Your task to perform on an android device: Open the calendar and show me this week's events? Image 0: 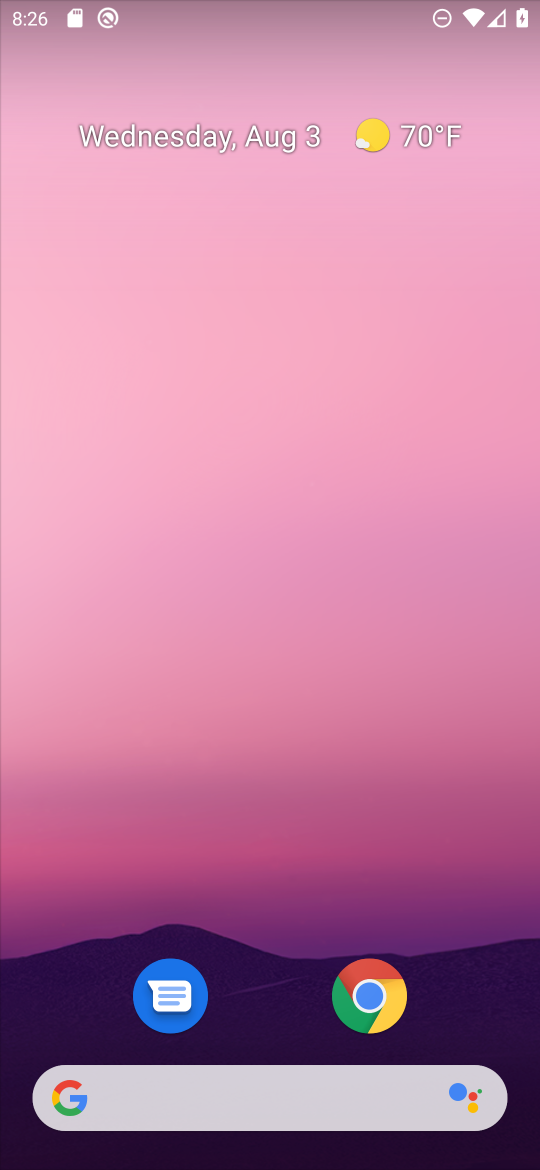
Step 0: drag from (288, 880) to (318, 0)
Your task to perform on an android device: Open the calendar and show me this week's events? Image 1: 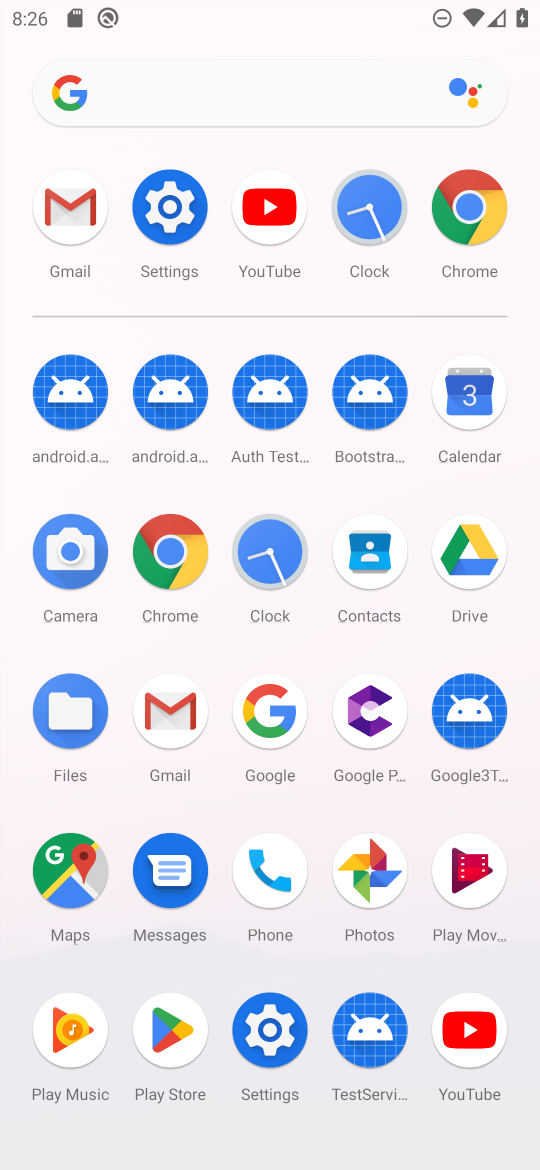
Step 1: click (172, 206)
Your task to perform on an android device: Open the calendar and show me this week's events? Image 2: 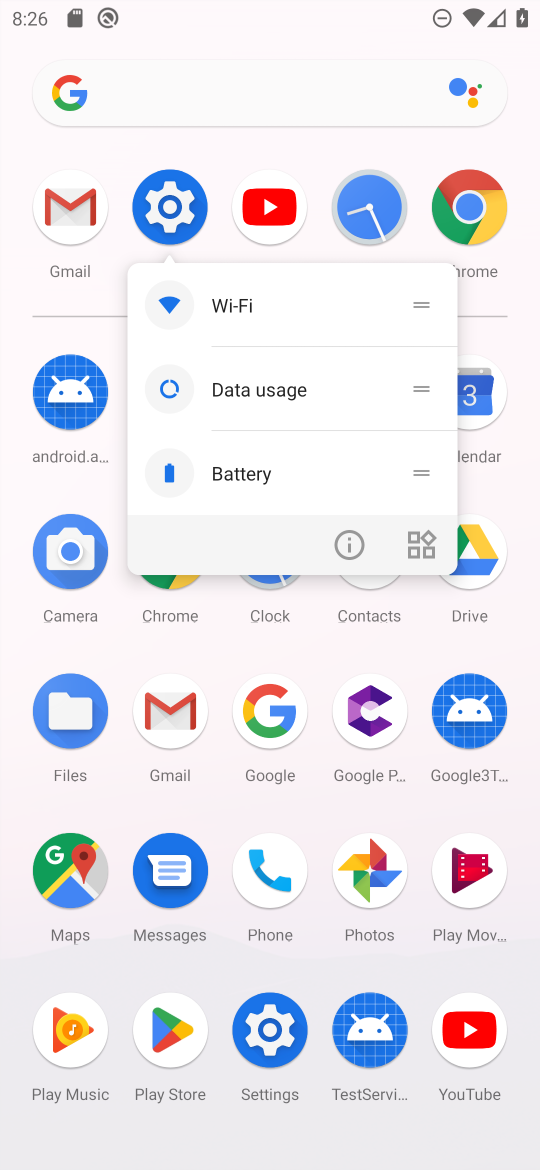
Step 2: click (172, 209)
Your task to perform on an android device: Open the calendar and show me this week's events? Image 3: 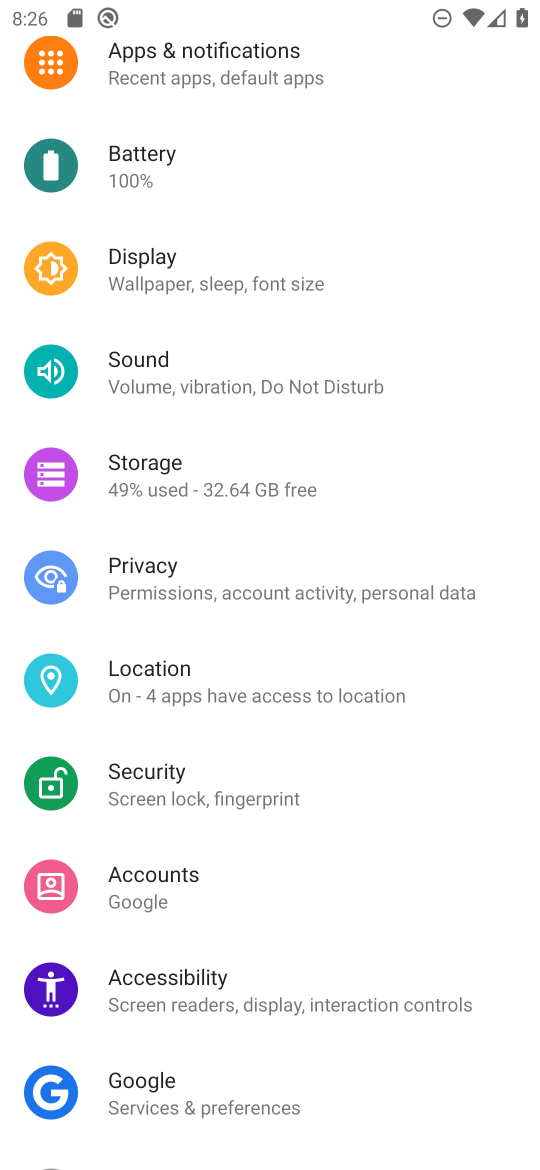
Step 3: drag from (275, 197) to (373, 915)
Your task to perform on an android device: Open the calendar and show me this week's events? Image 4: 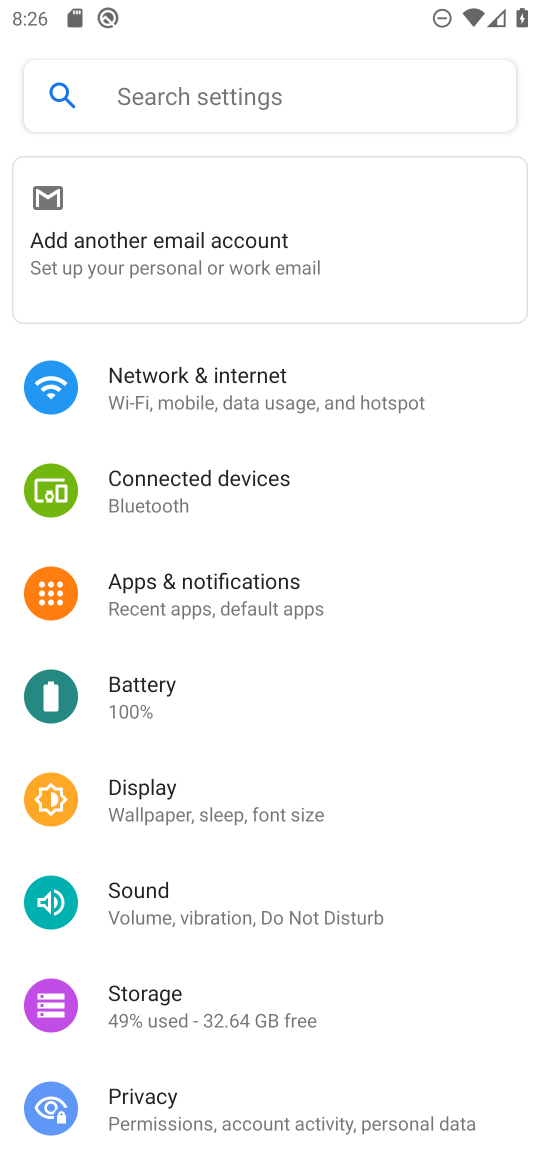
Step 4: press home button
Your task to perform on an android device: Open the calendar and show me this week's events? Image 5: 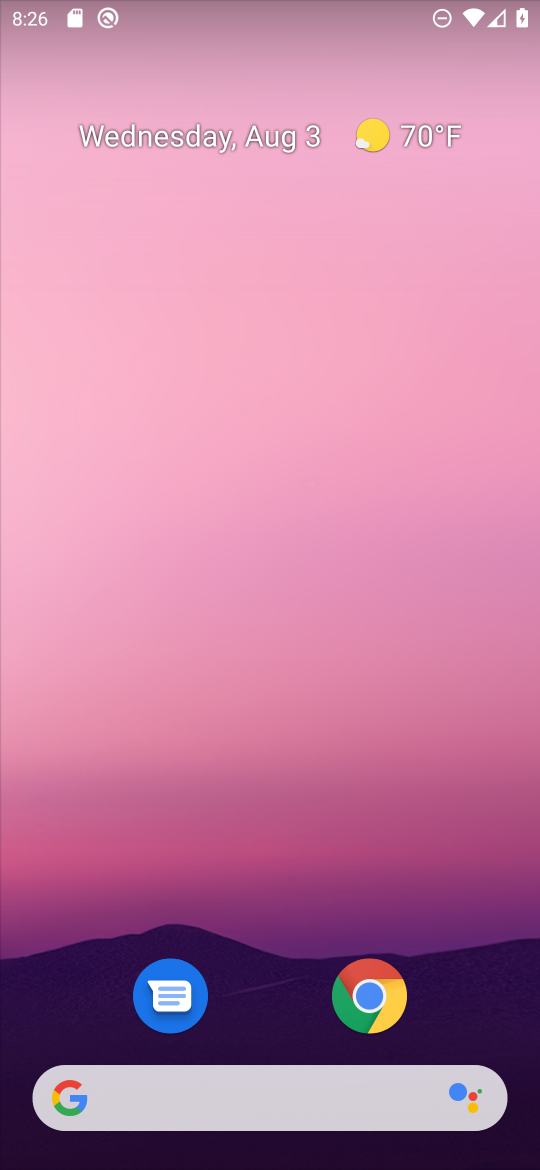
Step 5: drag from (316, 881) to (281, 0)
Your task to perform on an android device: Open the calendar and show me this week's events? Image 6: 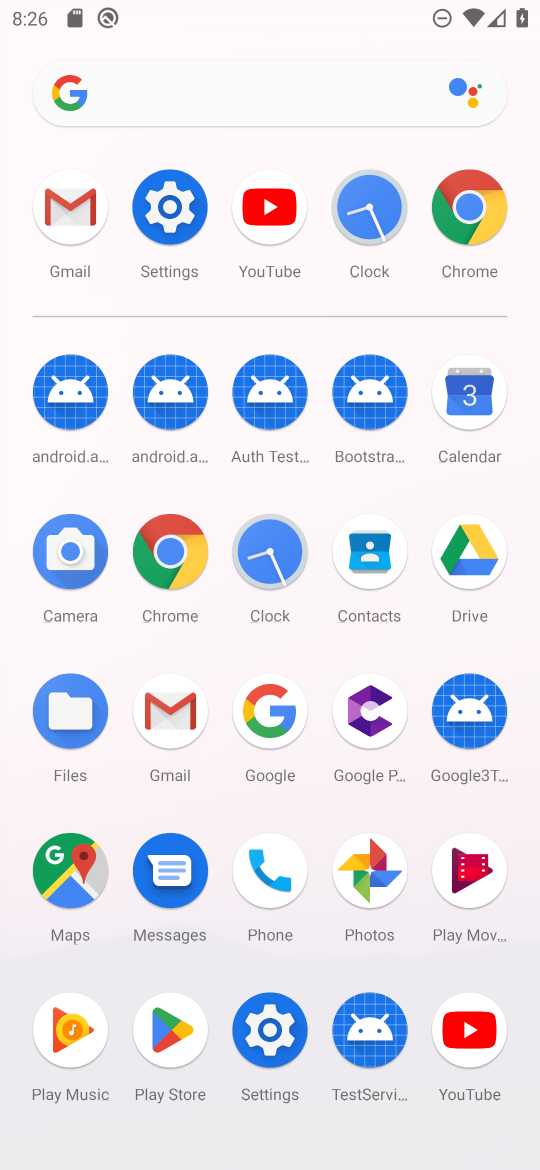
Step 6: click (472, 392)
Your task to perform on an android device: Open the calendar and show me this week's events? Image 7: 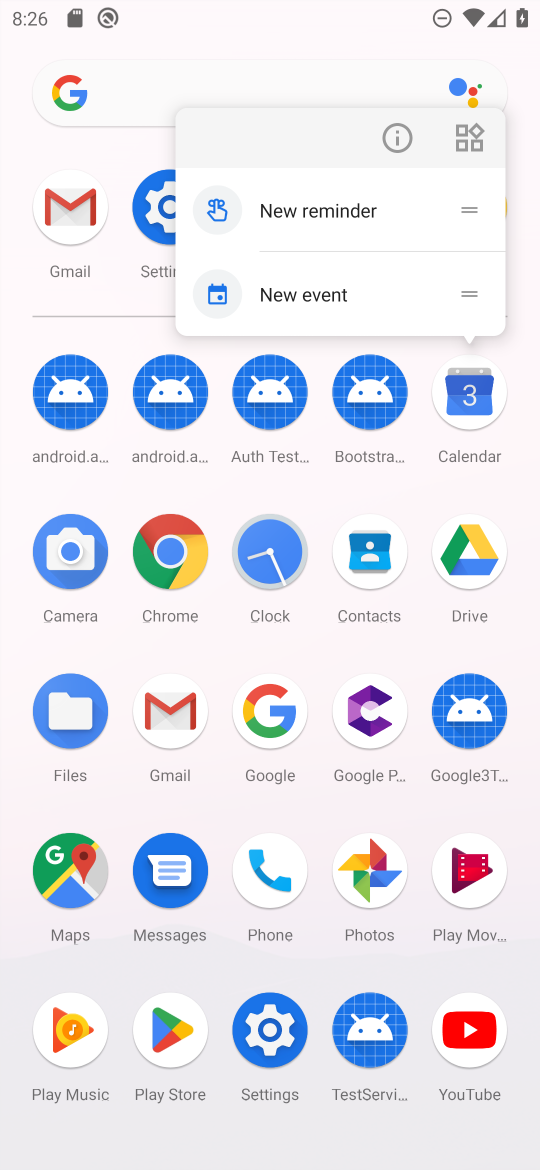
Step 7: click (472, 392)
Your task to perform on an android device: Open the calendar and show me this week's events? Image 8: 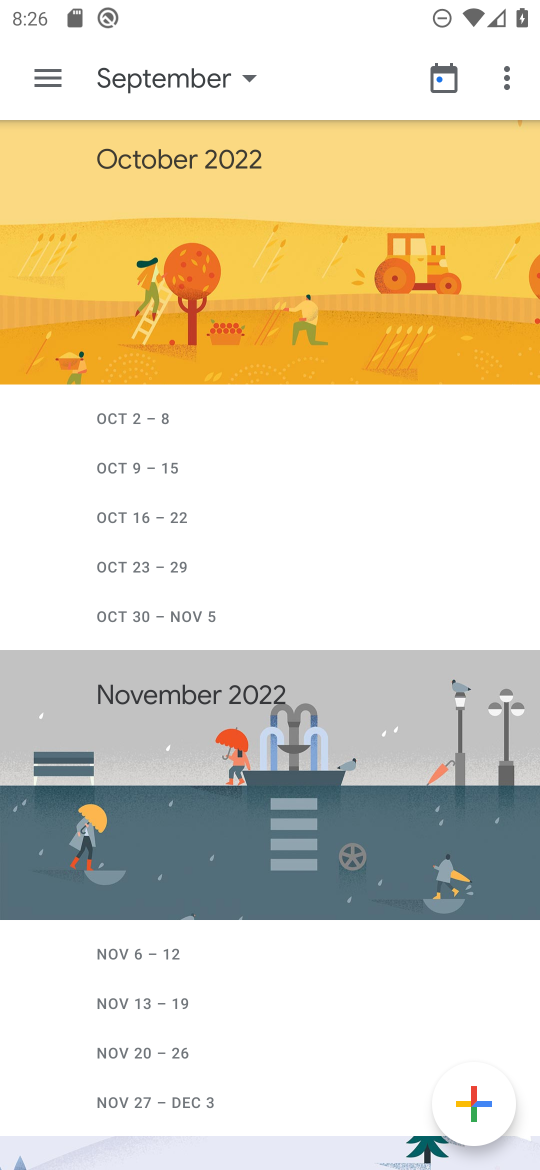
Step 8: drag from (255, 184) to (310, 907)
Your task to perform on an android device: Open the calendar and show me this week's events? Image 9: 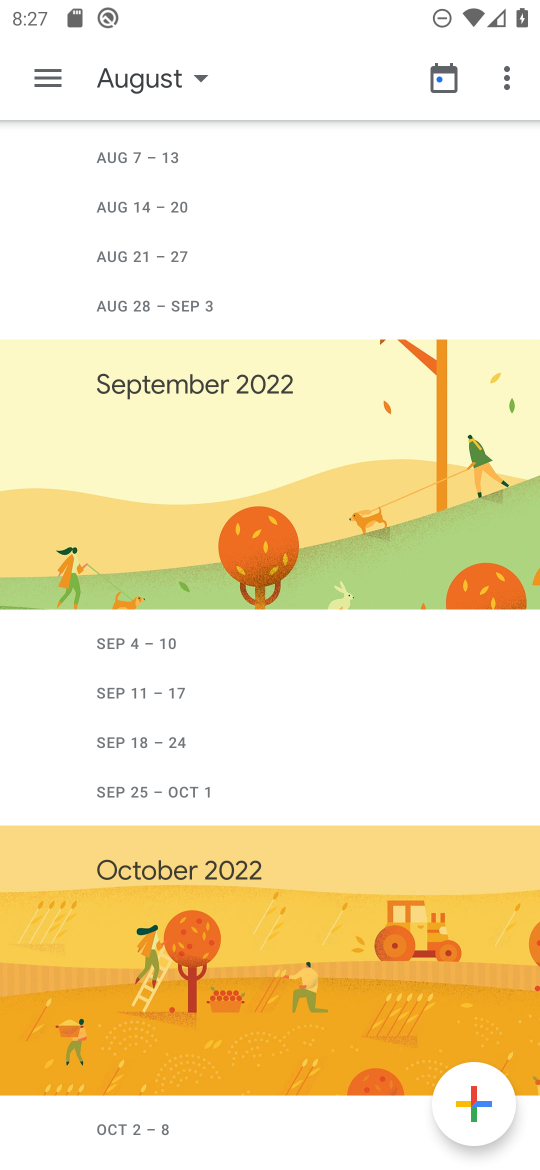
Step 9: click (49, 79)
Your task to perform on an android device: Open the calendar and show me this week's events? Image 10: 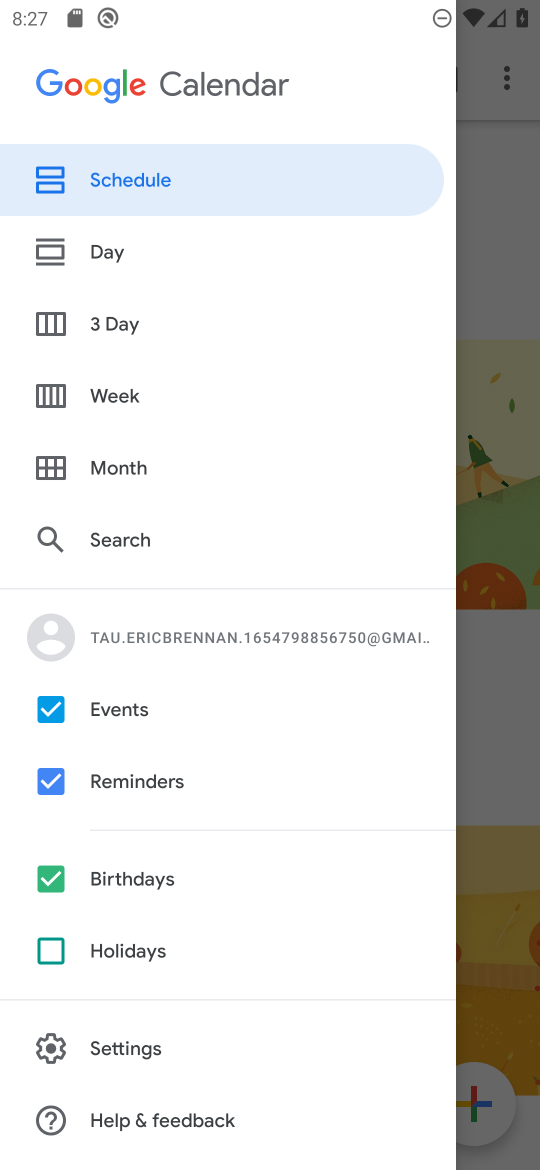
Step 10: click (47, 393)
Your task to perform on an android device: Open the calendar and show me this week's events? Image 11: 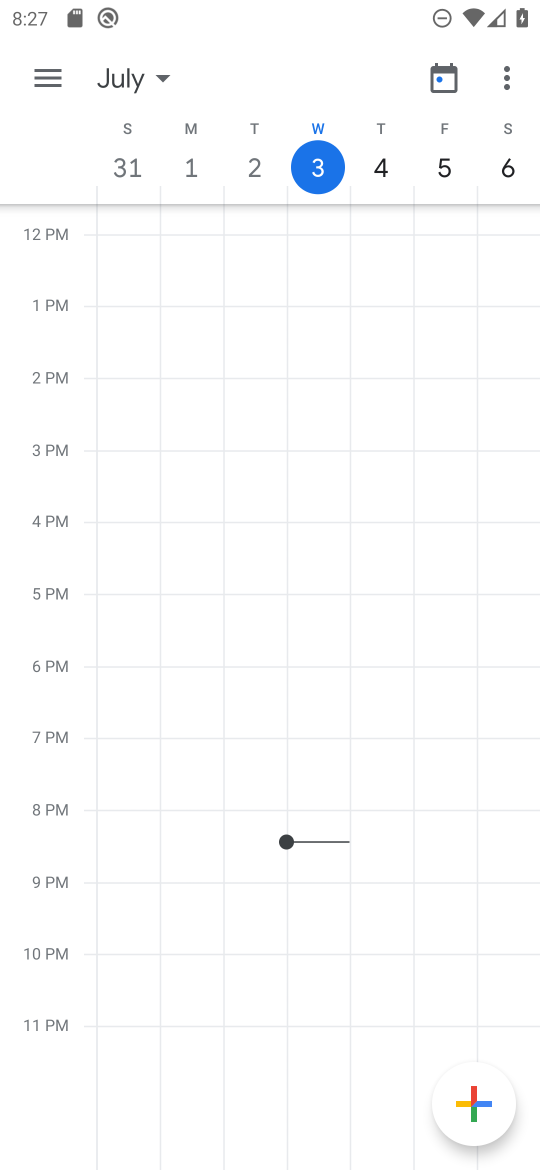
Step 11: task complete